Your task to perform on an android device: make emails show in primary in the gmail app Image 0: 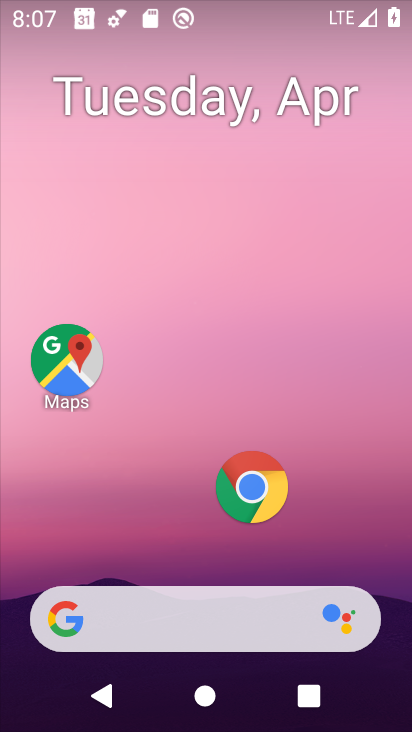
Step 0: drag from (202, 486) to (212, 202)
Your task to perform on an android device: make emails show in primary in the gmail app Image 1: 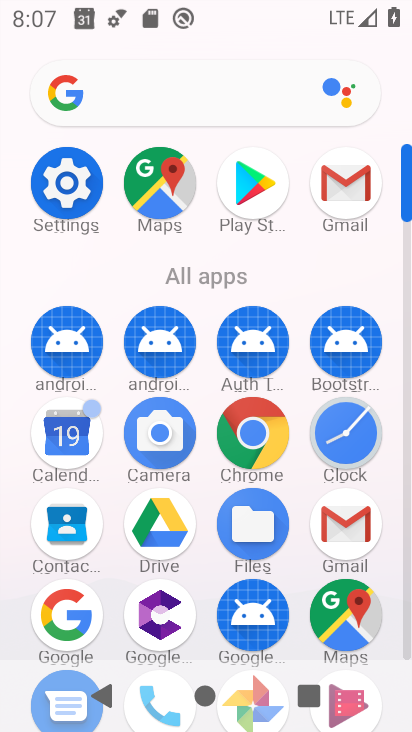
Step 1: click (359, 206)
Your task to perform on an android device: make emails show in primary in the gmail app Image 2: 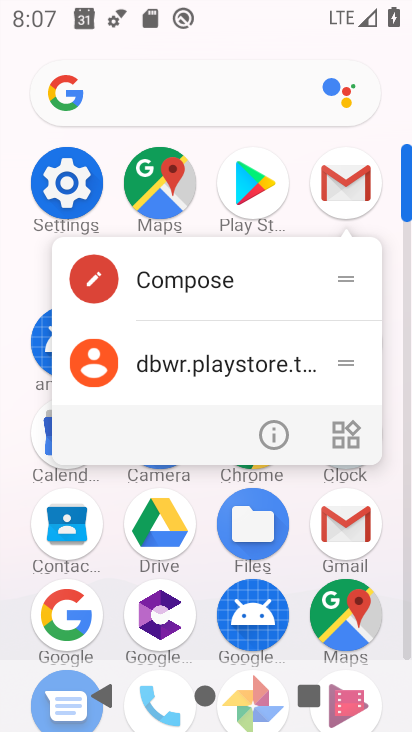
Step 2: click (351, 180)
Your task to perform on an android device: make emails show in primary in the gmail app Image 3: 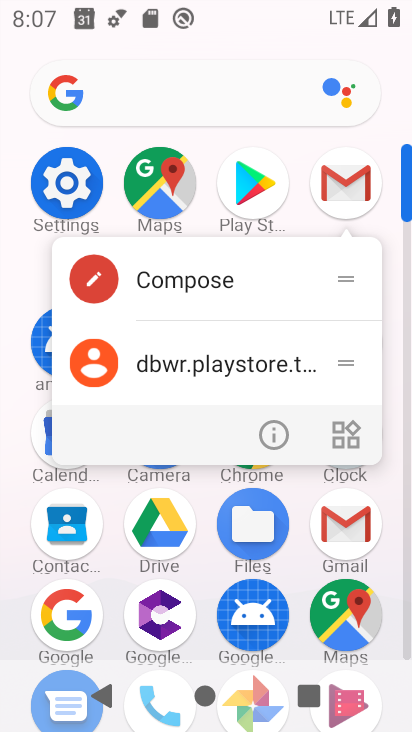
Step 3: click (351, 180)
Your task to perform on an android device: make emails show in primary in the gmail app Image 4: 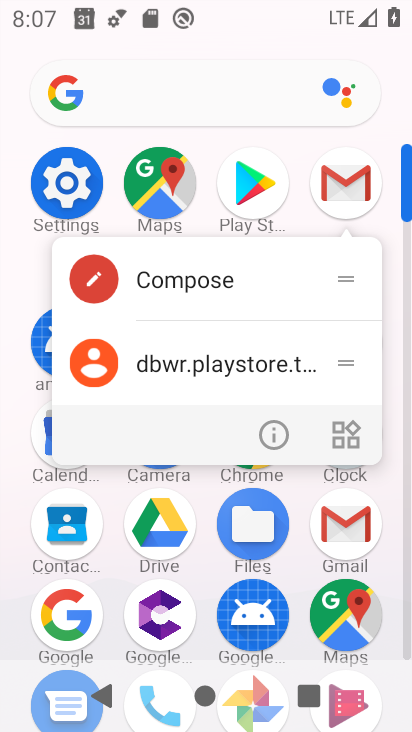
Step 4: click (351, 180)
Your task to perform on an android device: make emails show in primary in the gmail app Image 5: 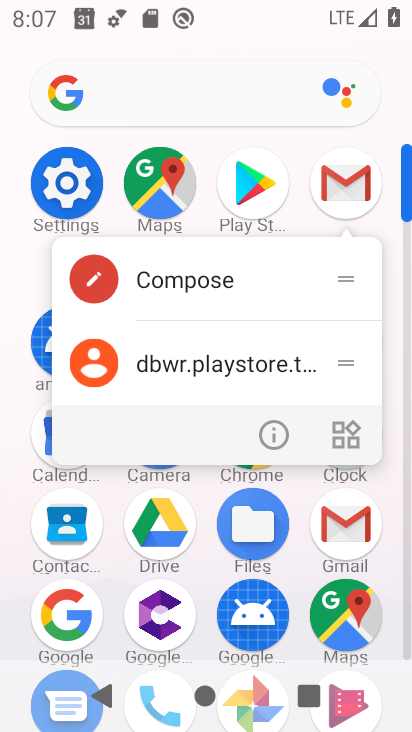
Step 5: click (351, 180)
Your task to perform on an android device: make emails show in primary in the gmail app Image 6: 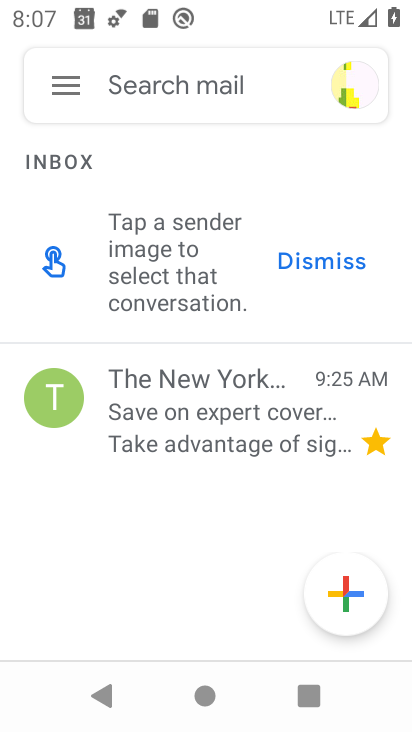
Step 6: click (62, 82)
Your task to perform on an android device: make emails show in primary in the gmail app Image 7: 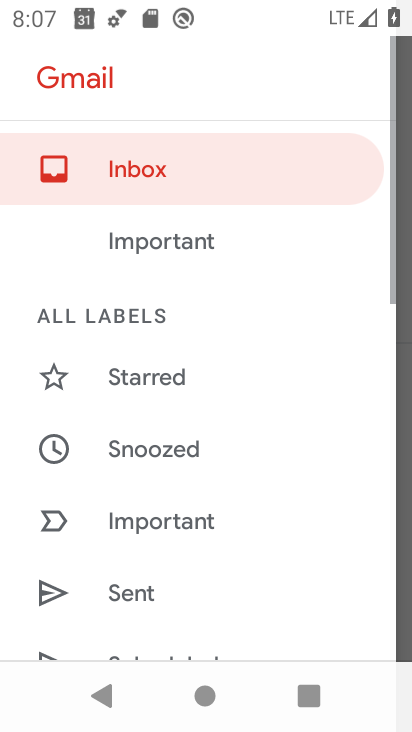
Step 7: drag from (238, 633) to (296, 79)
Your task to perform on an android device: make emails show in primary in the gmail app Image 8: 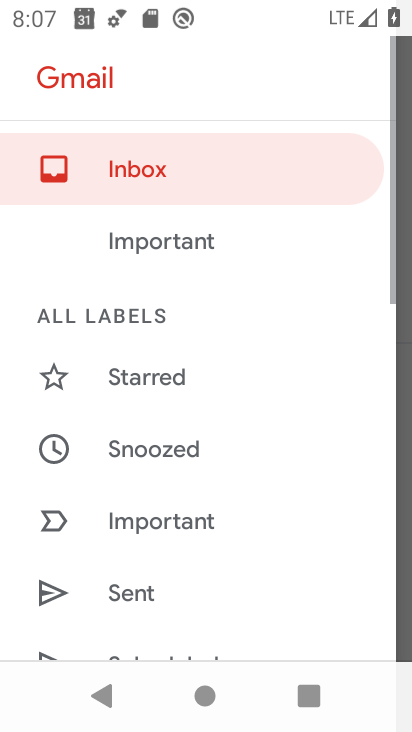
Step 8: drag from (235, 565) to (341, 49)
Your task to perform on an android device: make emails show in primary in the gmail app Image 9: 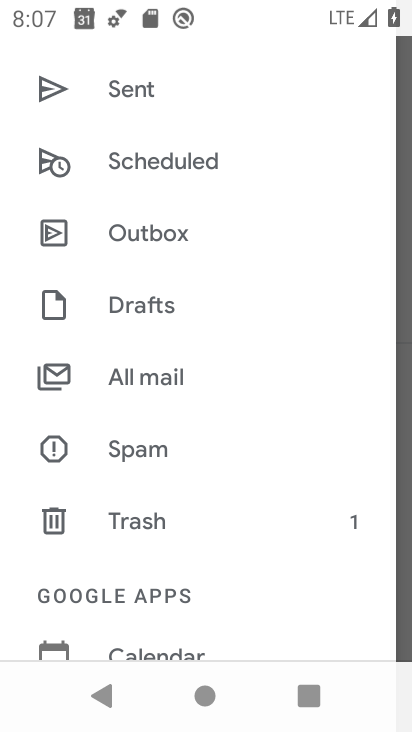
Step 9: drag from (233, 613) to (321, 25)
Your task to perform on an android device: make emails show in primary in the gmail app Image 10: 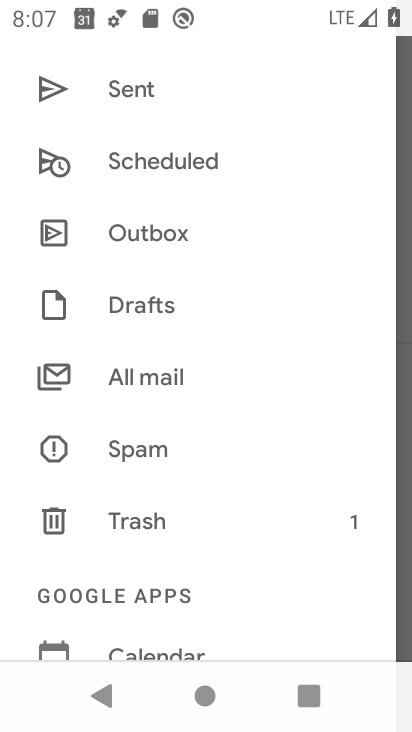
Step 10: drag from (270, 564) to (270, 26)
Your task to perform on an android device: make emails show in primary in the gmail app Image 11: 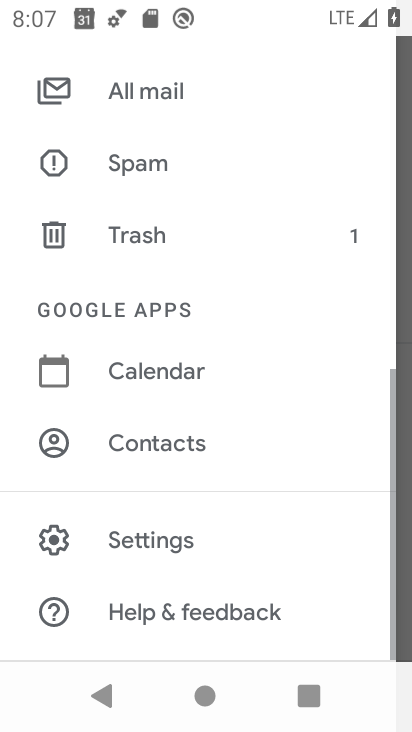
Step 11: click (153, 544)
Your task to perform on an android device: make emails show in primary in the gmail app Image 12: 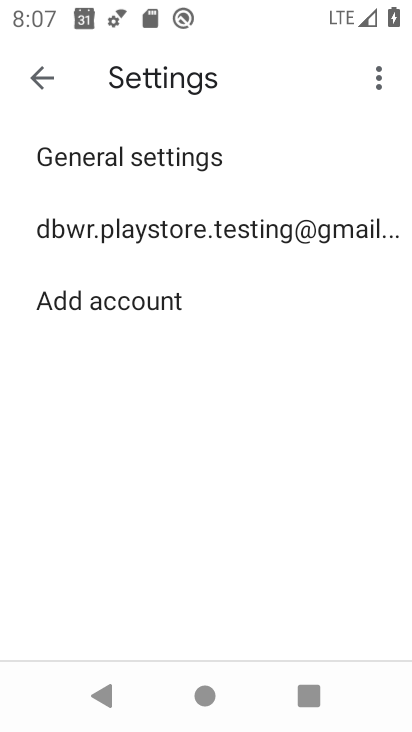
Step 12: click (242, 231)
Your task to perform on an android device: make emails show in primary in the gmail app Image 13: 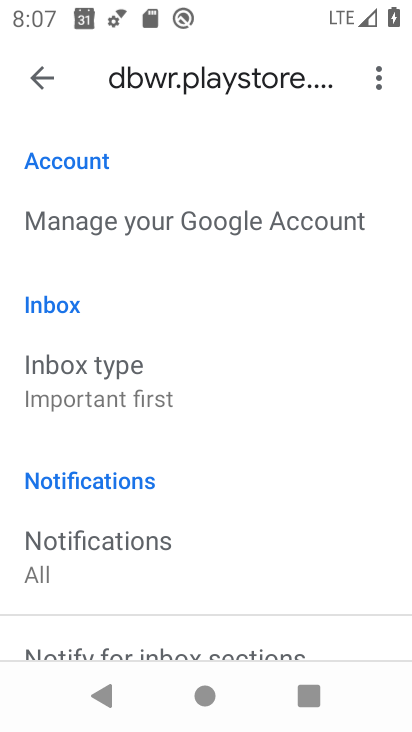
Step 13: click (116, 373)
Your task to perform on an android device: make emails show in primary in the gmail app Image 14: 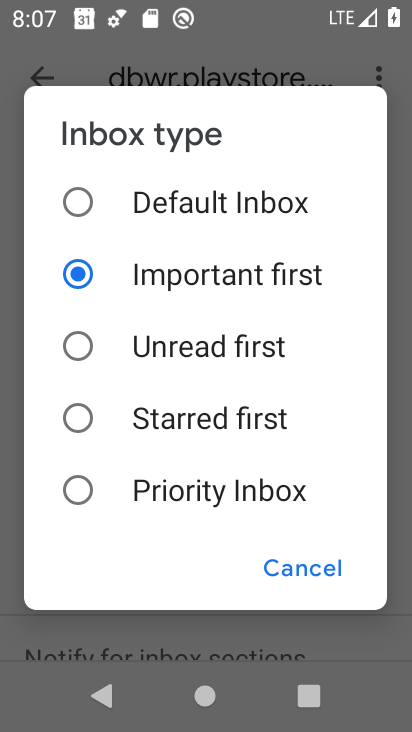
Step 14: click (242, 197)
Your task to perform on an android device: make emails show in primary in the gmail app Image 15: 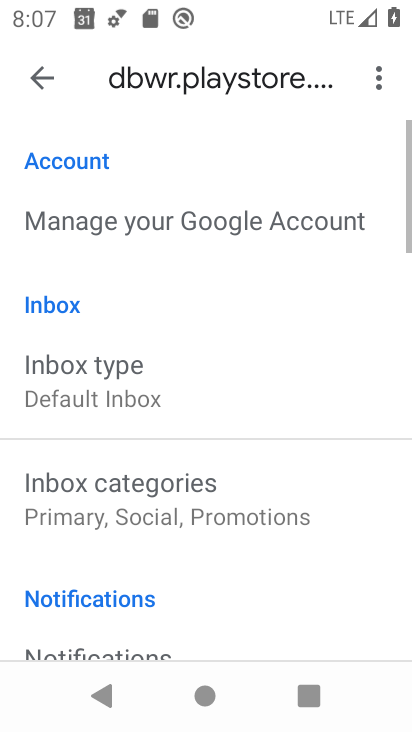
Step 15: click (111, 501)
Your task to perform on an android device: make emails show in primary in the gmail app Image 16: 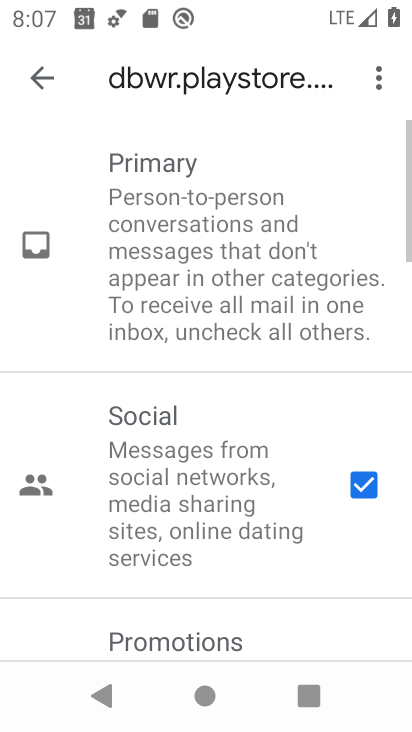
Step 16: click (360, 489)
Your task to perform on an android device: make emails show in primary in the gmail app Image 17: 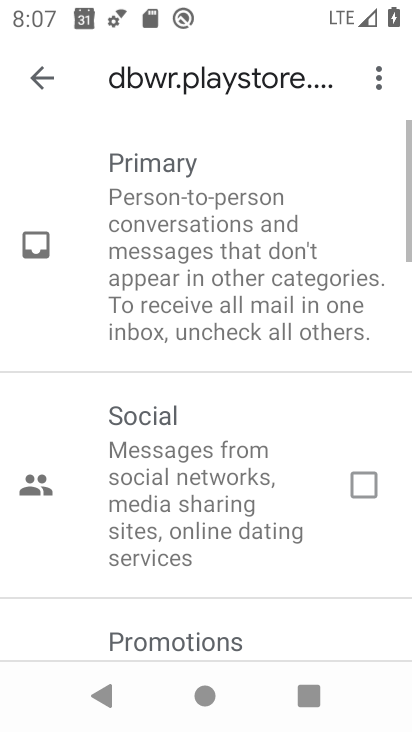
Step 17: drag from (317, 611) to (307, 15)
Your task to perform on an android device: make emails show in primary in the gmail app Image 18: 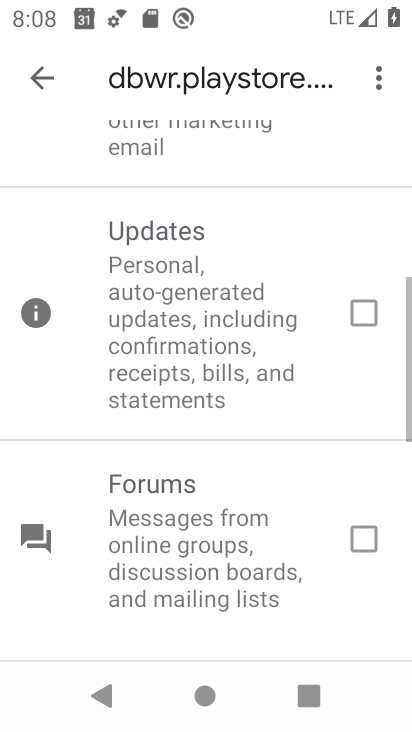
Step 18: drag from (222, 604) to (214, 157)
Your task to perform on an android device: make emails show in primary in the gmail app Image 19: 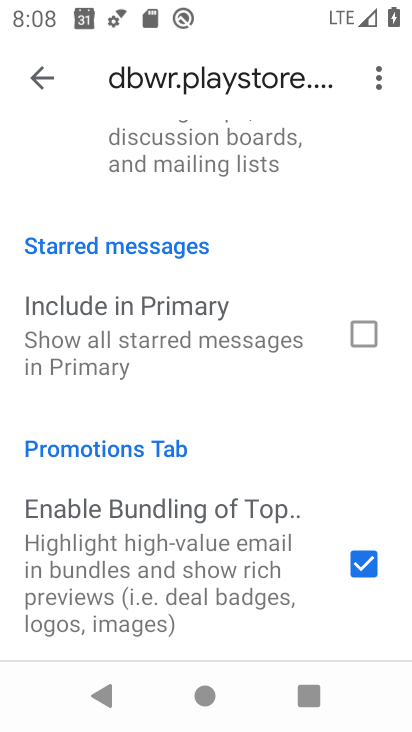
Step 19: click (374, 562)
Your task to perform on an android device: make emails show in primary in the gmail app Image 20: 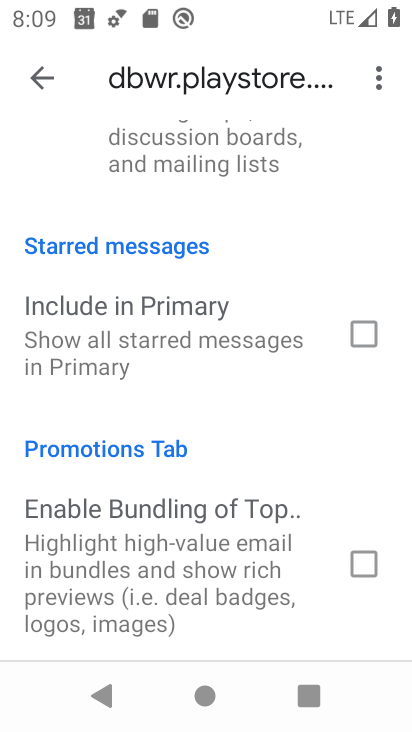
Step 20: click (52, 74)
Your task to perform on an android device: make emails show in primary in the gmail app Image 21: 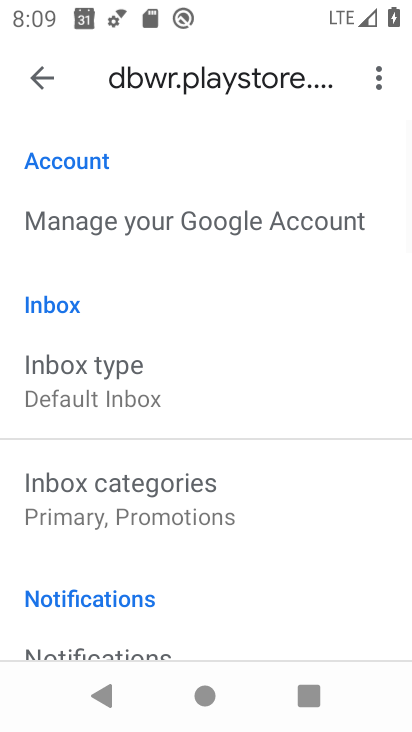
Step 21: click (170, 490)
Your task to perform on an android device: make emails show in primary in the gmail app Image 22: 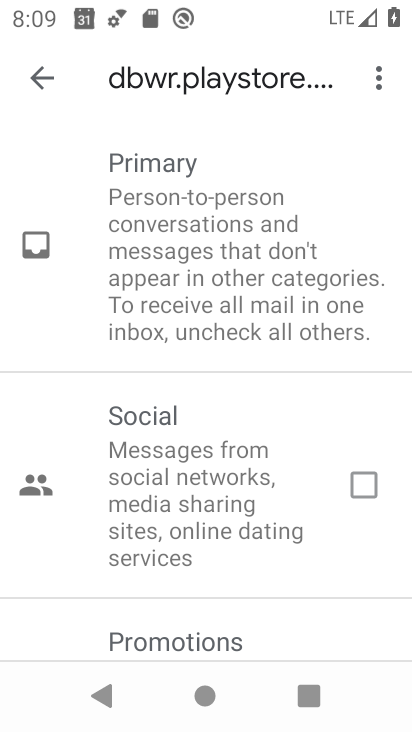
Step 22: drag from (275, 579) to (244, 18)
Your task to perform on an android device: make emails show in primary in the gmail app Image 23: 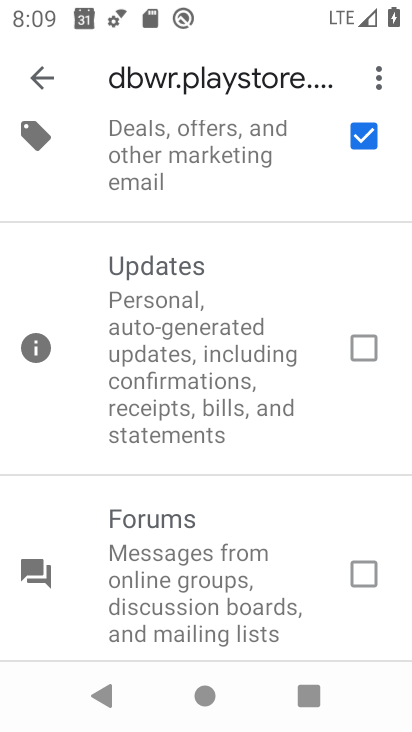
Step 23: click (359, 142)
Your task to perform on an android device: make emails show in primary in the gmail app Image 24: 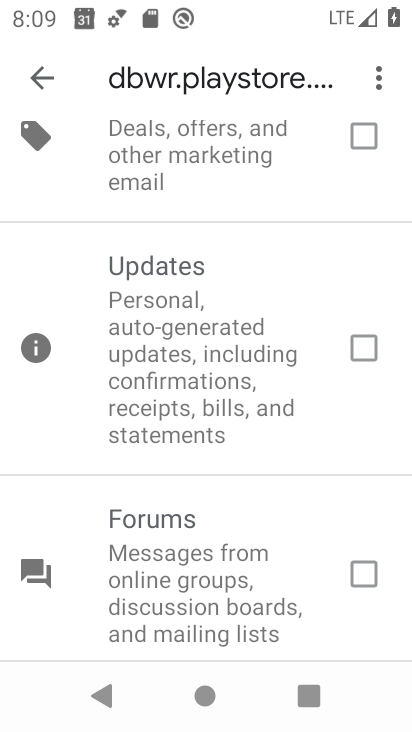
Step 24: task complete